Your task to perform on an android device: Open maps Image 0: 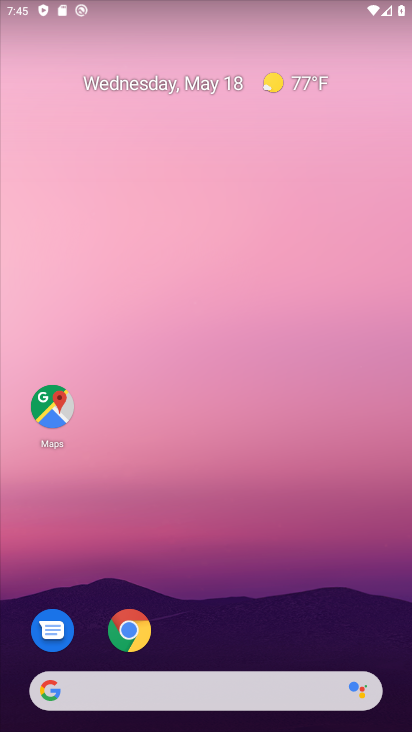
Step 0: click (43, 410)
Your task to perform on an android device: Open maps Image 1: 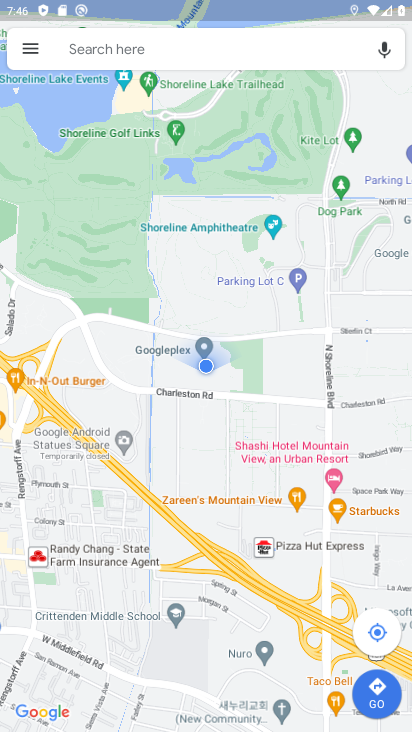
Step 1: task complete